Your task to perform on an android device: turn off notifications settings in the gmail app Image 0: 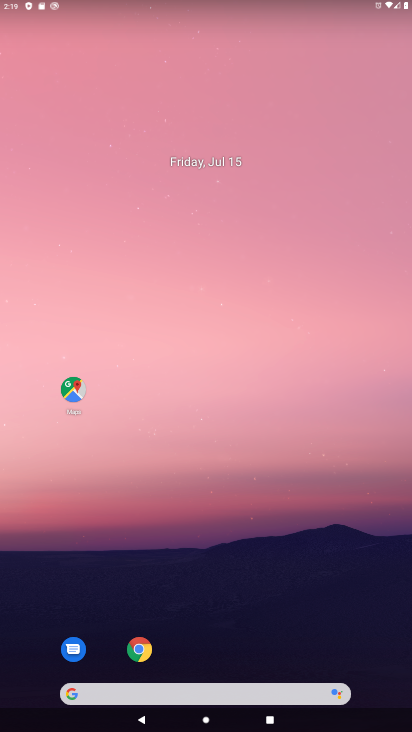
Step 0: drag from (209, 499) to (234, 163)
Your task to perform on an android device: turn off notifications settings in the gmail app Image 1: 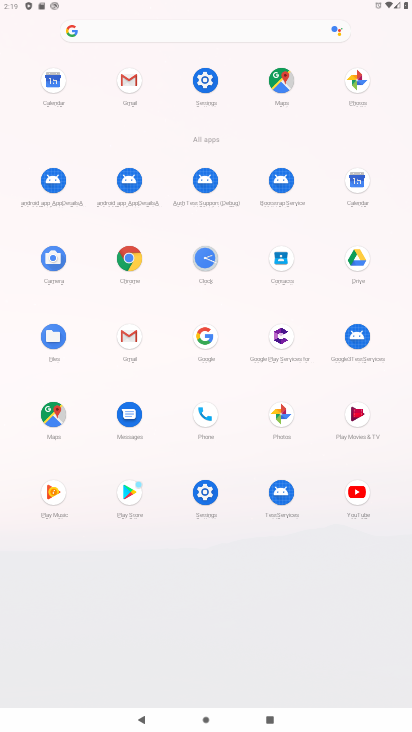
Step 1: click (203, 78)
Your task to perform on an android device: turn off notifications settings in the gmail app Image 2: 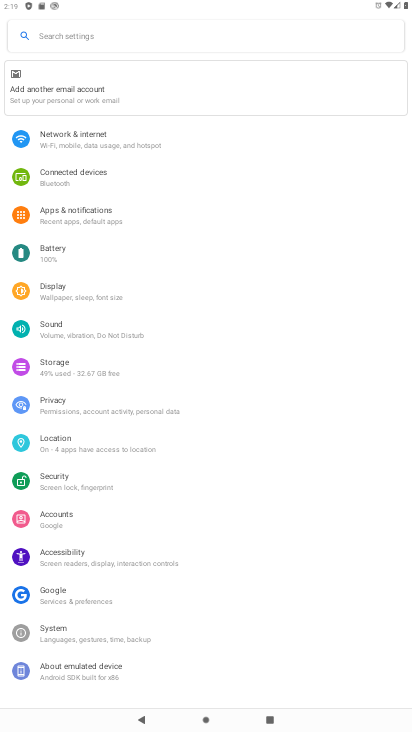
Step 2: click (93, 216)
Your task to perform on an android device: turn off notifications settings in the gmail app Image 3: 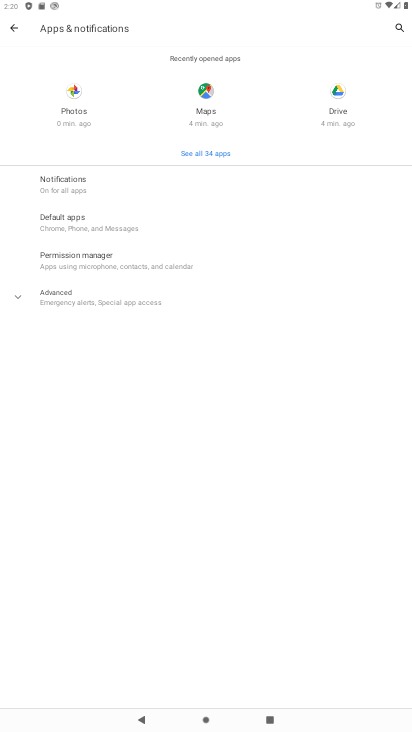
Step 3: click (200, 145)
Your task to perform on an android device: turn off notifications settings in the gmail app Image 4: 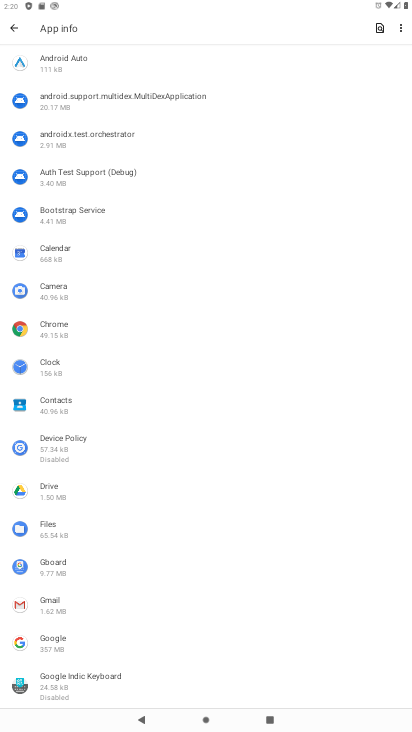
Step 4: click (56, 610)
Your task to perform on an android device: turn off notifications settings in the gmail app Image 5: 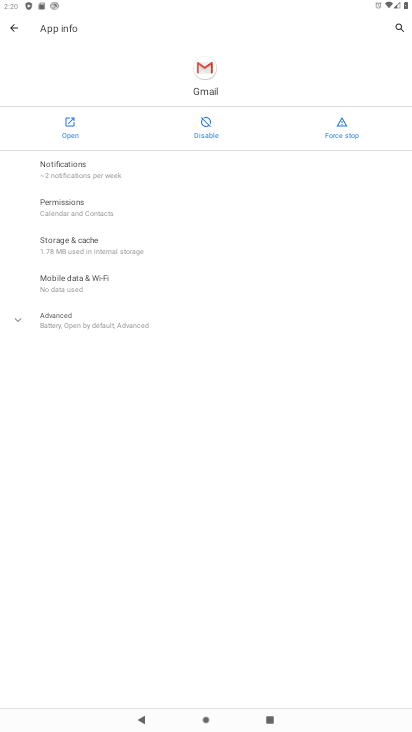
Step 5: click (110, 171)
Your task to perform on an android device: turn off notifications settings in the gmail app Image 6: 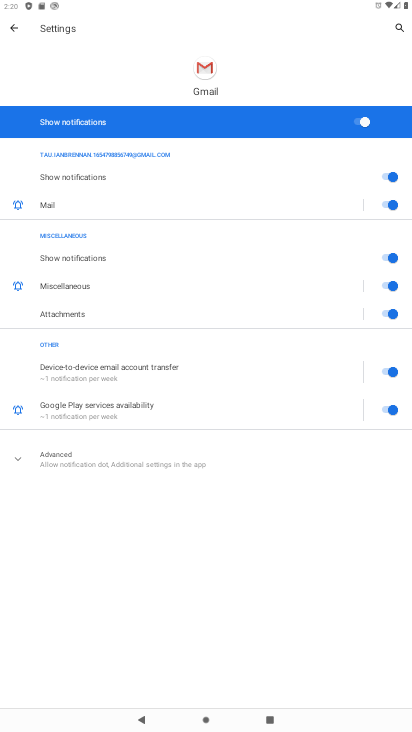
Step 6: click (358, 123)
Your task to perform on an android device: turn off notifications settings in the gmail app Image 7: 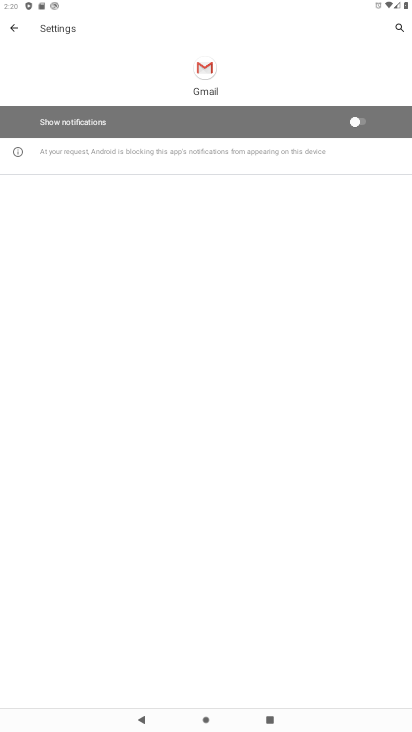
Step 7: task complete